Your task to perform on an android device: turn off translation in the chrome app Image 0: 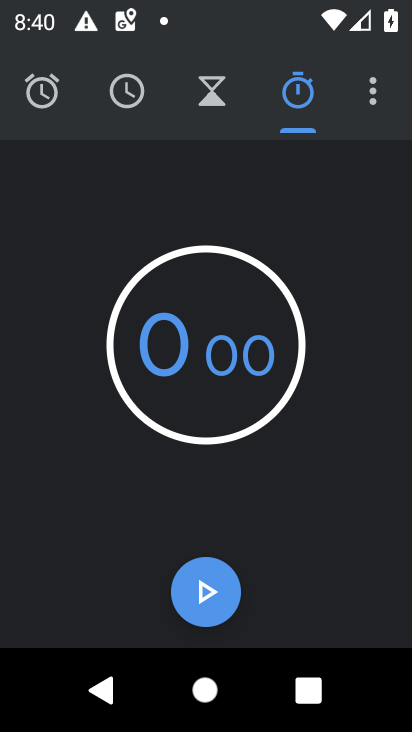
Step 0: press home button
Your task to perform on an android device: turn off translation in the chrome app Image 1: 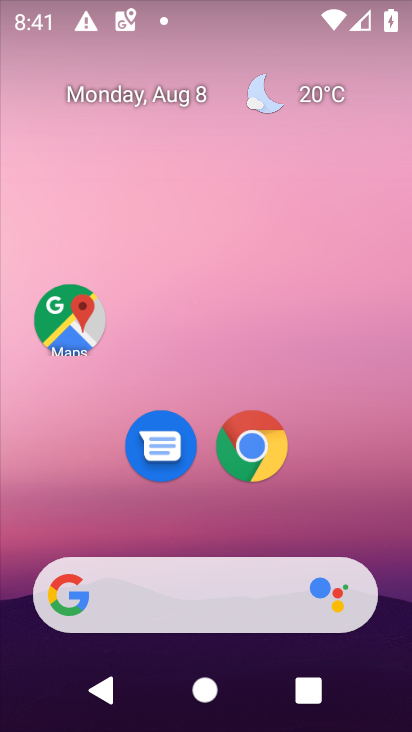
Step 1: click (251, 445)
Your task to perform on an android device: turn off translation in the chrome app Image 2: 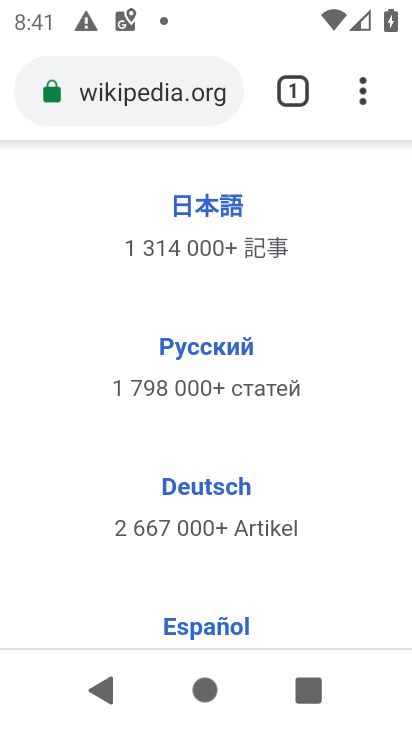
Step 2: click (353, 103)
Your task to perform on an android device: turn off translation in the chrome app Image 3: 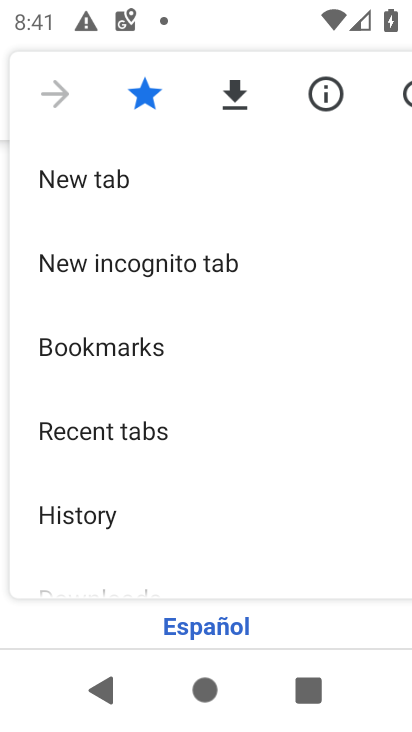
Step 3: drag from (223, 560) to (243, 180)
Your task to perform on an android device: turn off translation in the chrome app Image 4: 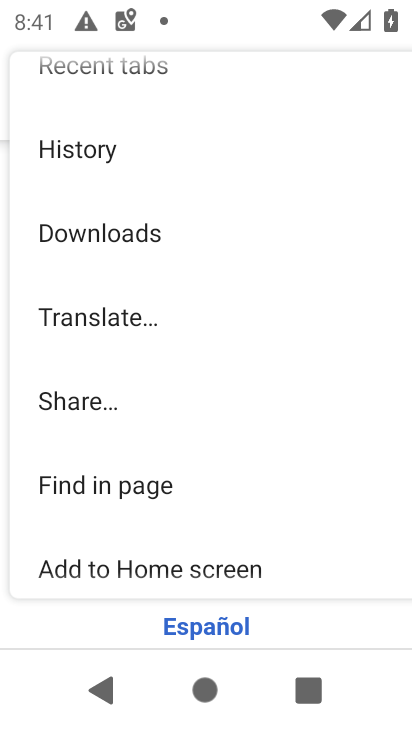
Step 4: drag from (283, 532) to (215, 187)
Your task to perform on an android device: turn off translation in the chrome app Image 5: 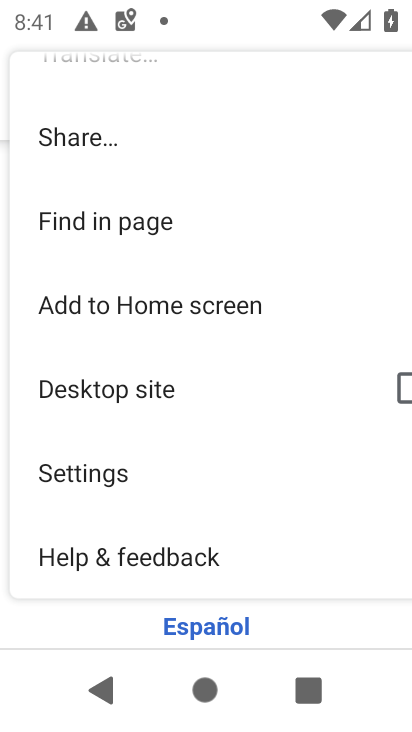
Step 5: click (53, 481)
Your task to perform on an android device: turn off translation in the chrome app Image 6: 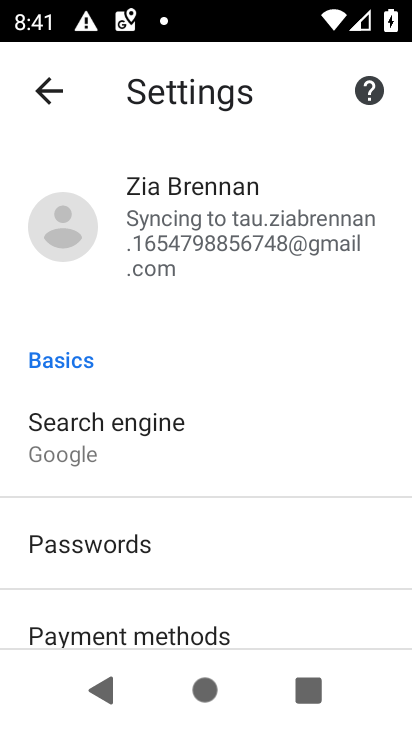
Step 6: drag from (276, 629) to (285, 277)
Your task to perform on an android device: turn off translation in the chrome app Image 7: 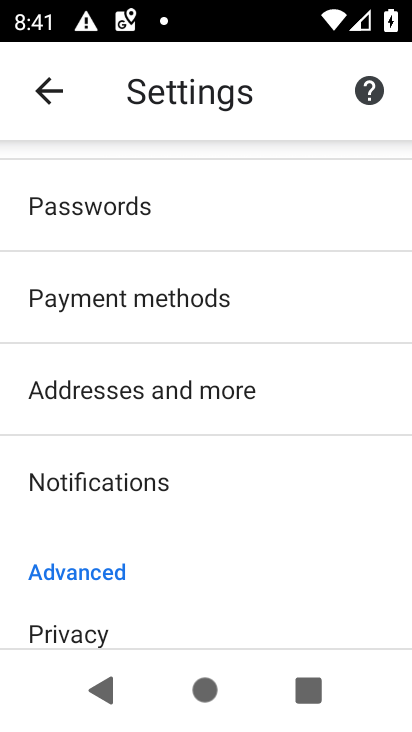
Step 7: drag from (274, 609) to (280, 209)
Your task to perform on an android device: turn off translation in the chrome app Image 8: 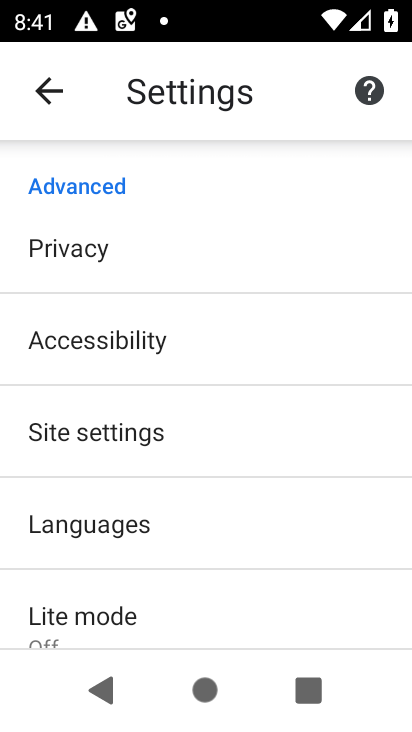
Step 8: click (57, 531)
Your task to perform on an android device: turn off translation in the chrome app Image 9: 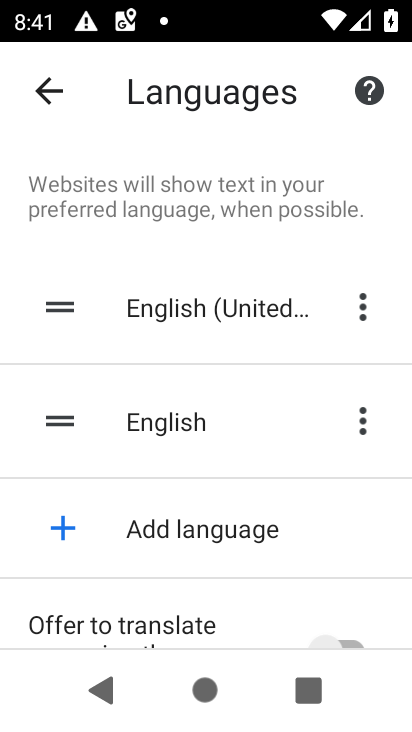
Step 9: task complete